Your task to perform on an android device: turn off location Image 0: 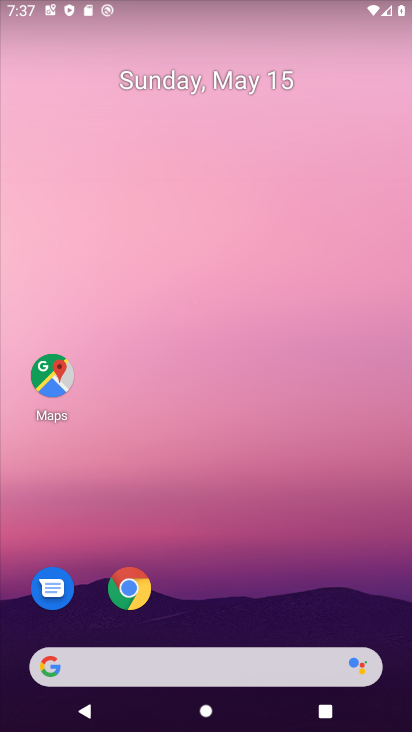
Step 0: drag from (210, 621) to (238, 30)
Your task to perform on an android device: turn off location Image 1: 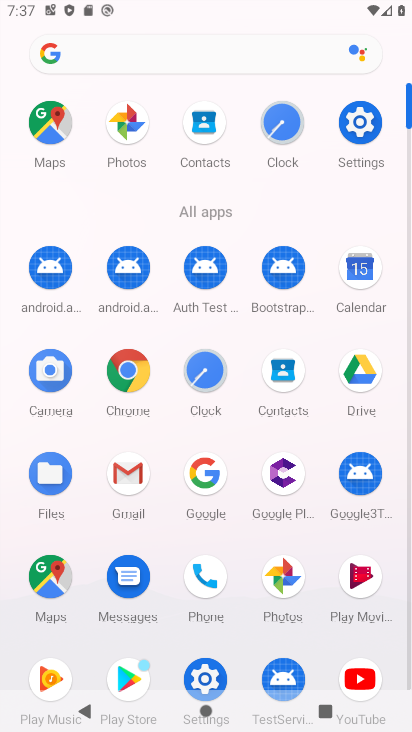
Step 1: click (354, 117)
Your task to perform on an android device: turn off location Image 2: 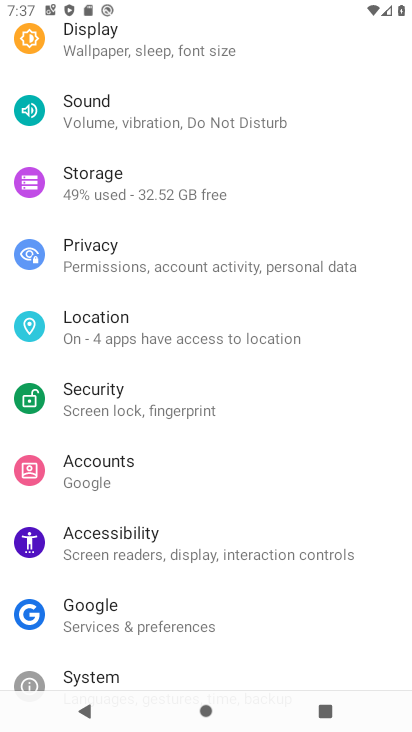
Step 2: click (122, 317)
Your task to perform on an android device: turn off location Image 3: 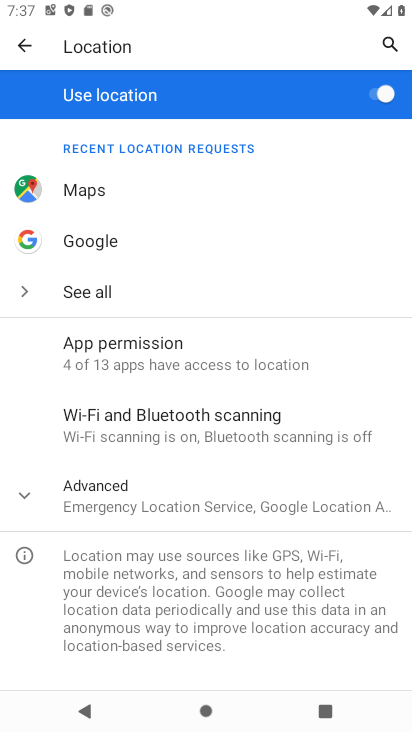
Step 3: click (369, 81)
Your task to perform on an android device: turn off location Image 4: 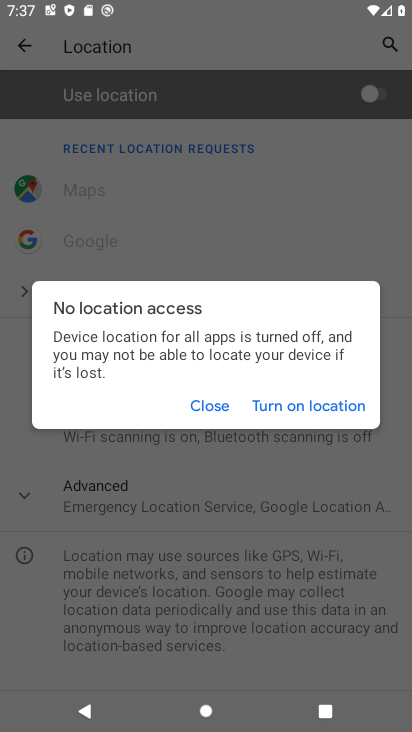
Step 4: click (190, 399)
Your task to perform on an android device: turn off location Image 5: 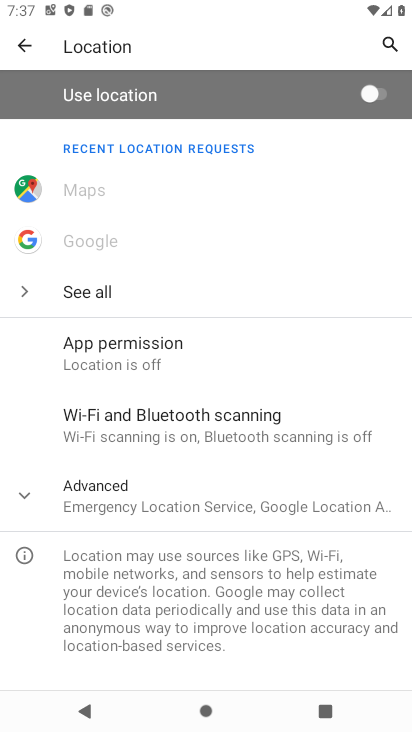
Step 5: task complete